Your task to perform on an android device: move an email to a new category in the gmail app Image 0: 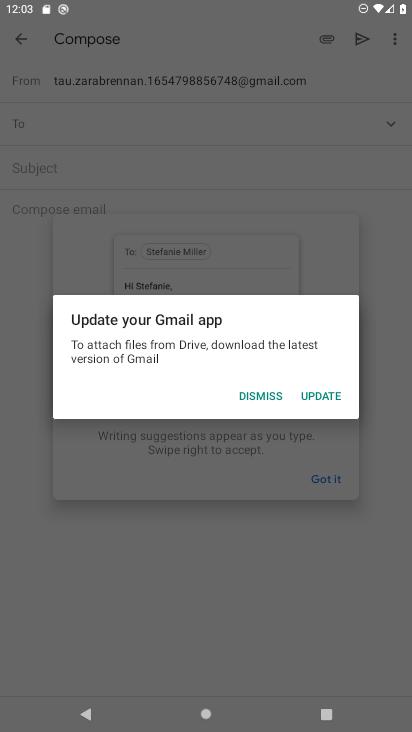
Step 0: press home button
Your task to perform on an android device: move an email to a new category in the gmail app Image 1: 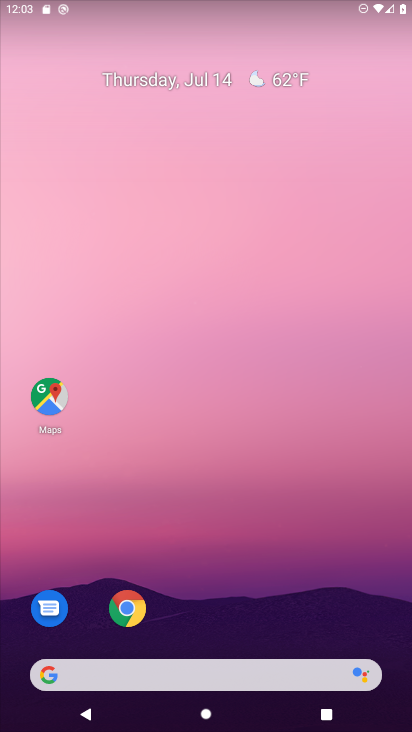
Step 1: drag from (229, 684) to (209, 242)
Your task to perform on an android device: move an email to a new category in the gmail app Image 2: 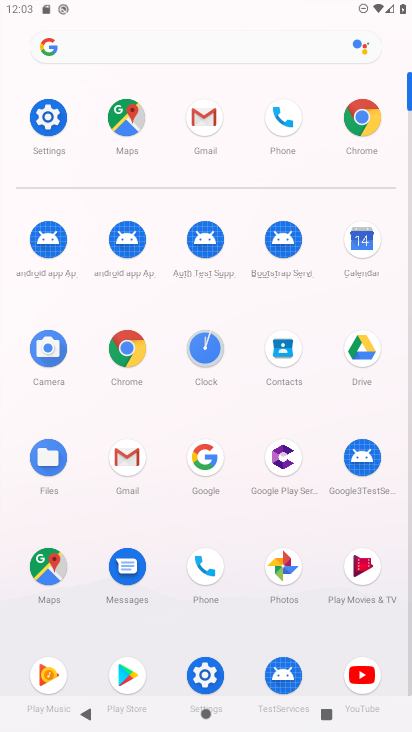
Step 2: click (134, 457)
Your task to perform on an android device: move an email to a new category in the gmail app Image 3: 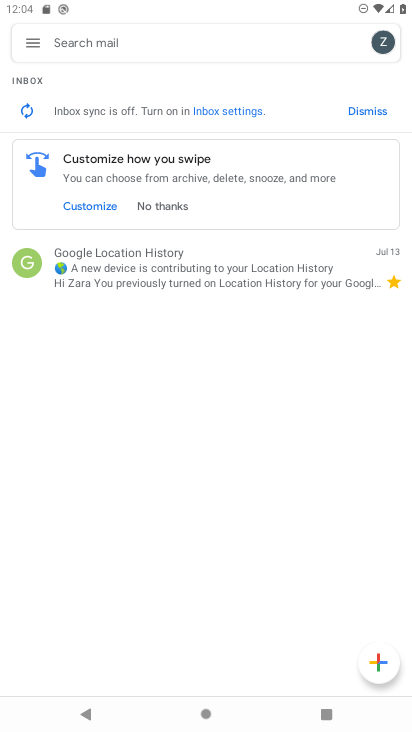
Step 3: click (161, 265)
Your task to perform on an android device: move an email to a new category in the gmail app Image 4: 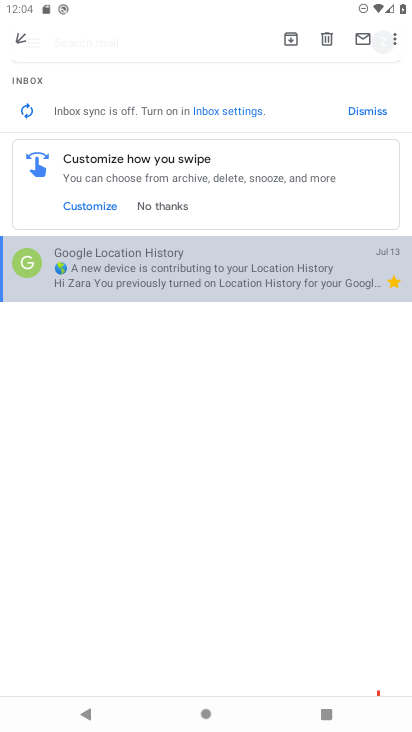
Step 4: click (161, 265)
Your task to perform on an android device: move an email to a new category in the gmail app Image 5: 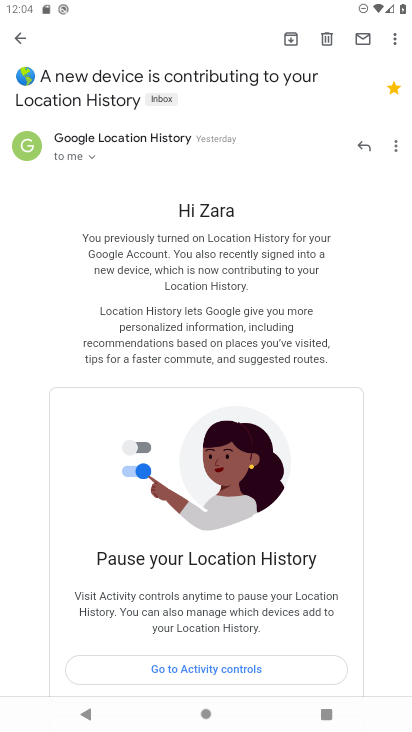
Step 5: click (393, 44)
Your task to perform on an android device: move an email to a new category in the gmail app Image 6: 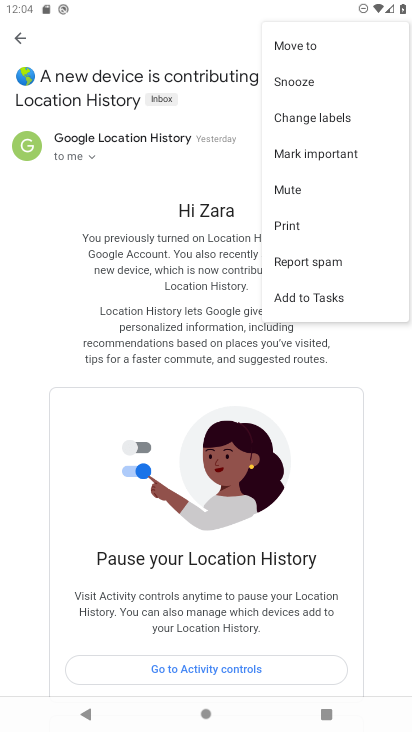
Step 6: click (295, 48)
Your task to perform on an android device: move an email to a new category in the gmail app Image 7: 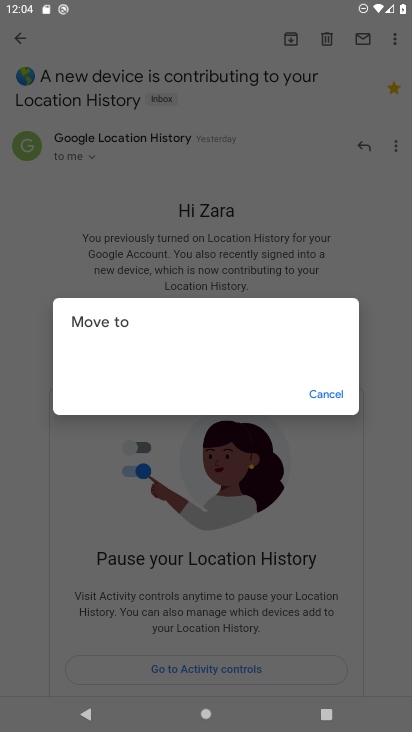
Step 7: task complete